Your task to perform on an android device: When is my next appointment? Image 0: 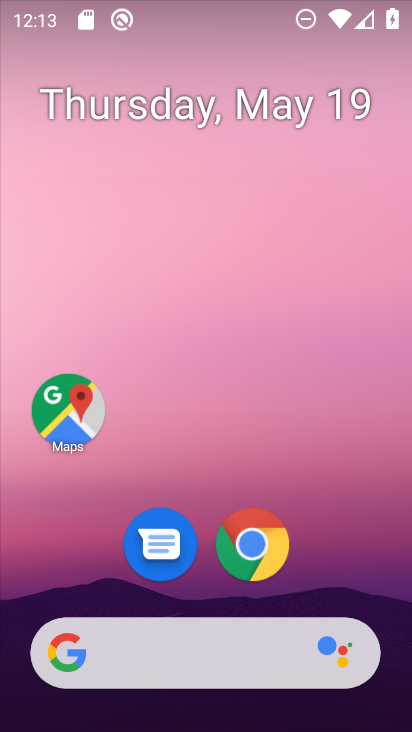
Step 0: drag from (365, 545) to (266, 83)
Your task to perform on an android device: When is my next appointment? Image 1: 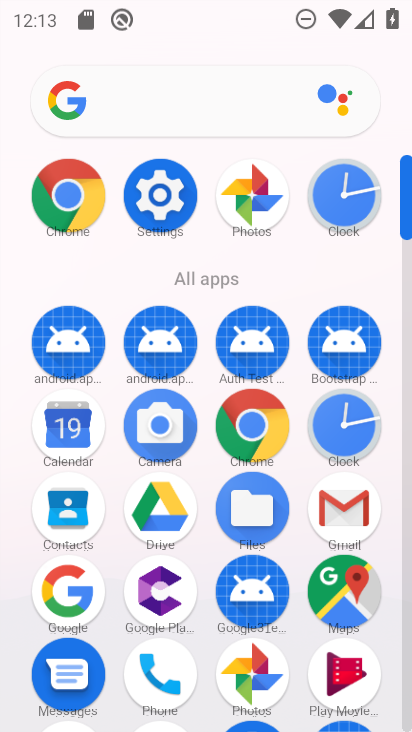
Step 1: click (63, 432)
Your task to perform on an android device: When is my next appointment? Image 2: 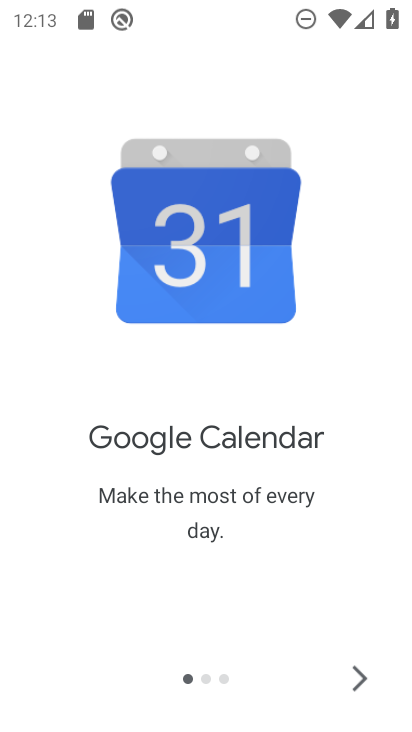
Step 2: click (348, 674)
Your task to perform on an android device: When is my next appointment? Image 3: 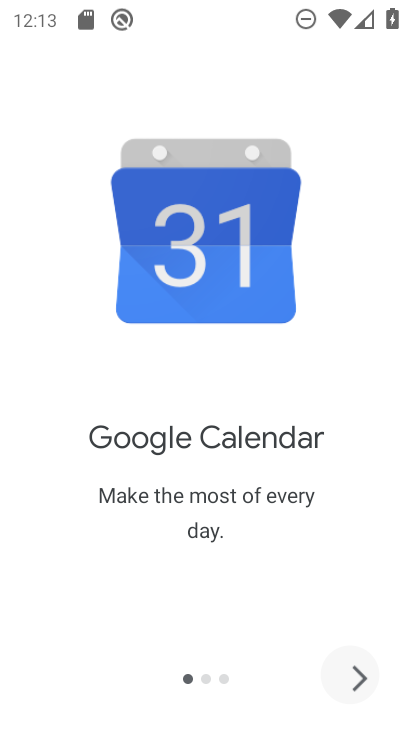
Step 3: click (348, 674)
Your task to perform on an android device: When is my next appointment? Image 4: 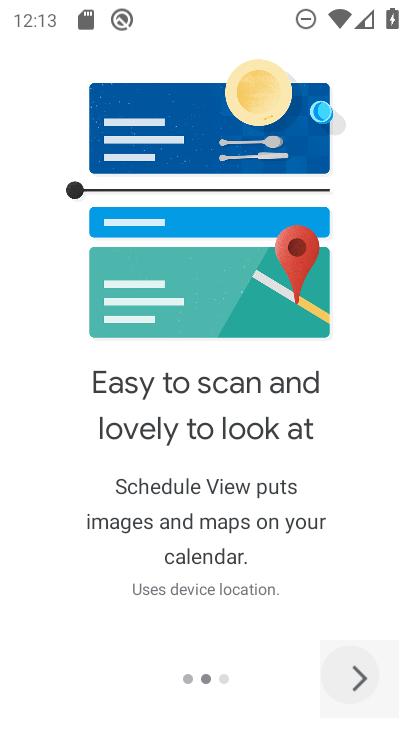
Step 4: click (348, 674)
Your task to perform on an android device: When is my next appointment? Image 5: 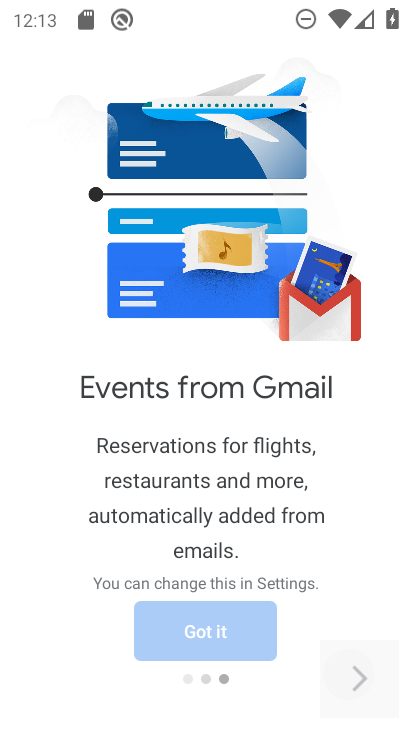
Step 5: click (348, 674)
Your task to perform on an android device: When is my next appointment? Image 6: 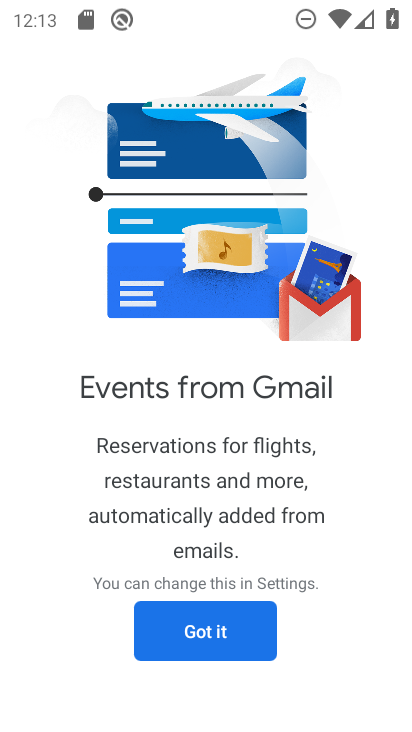
Step 6: click (231, 638)
Your task to perform on an android device: When is my next appointment? Image 7: 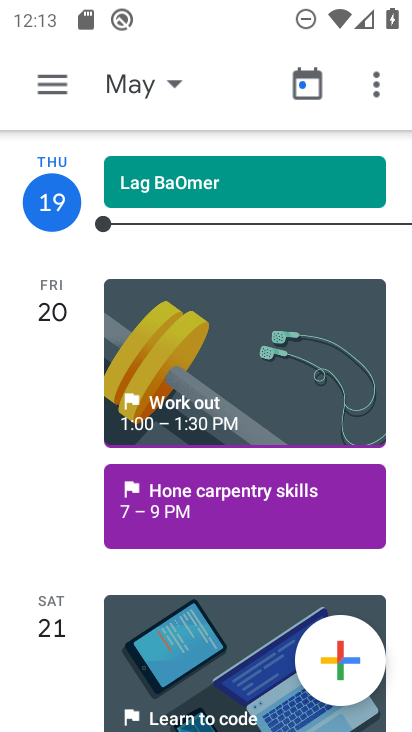
Step 7: click (30, 108)
Your task to perform on an android device: When is my next appointment? Image 8: 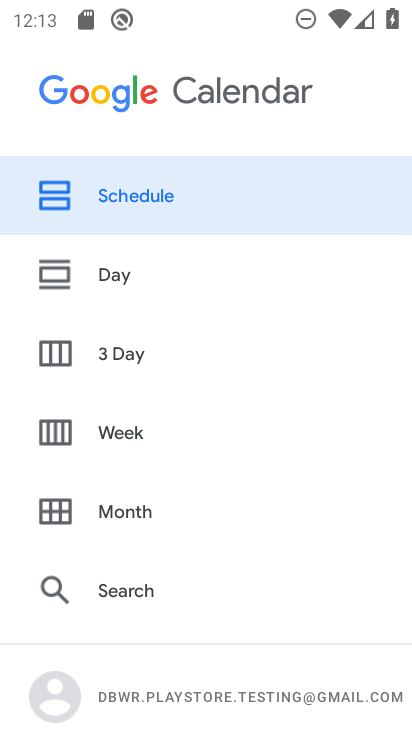
Step 8: click (105, 533)
Your task to perform on an android device: When is my next appointment? Image 9: 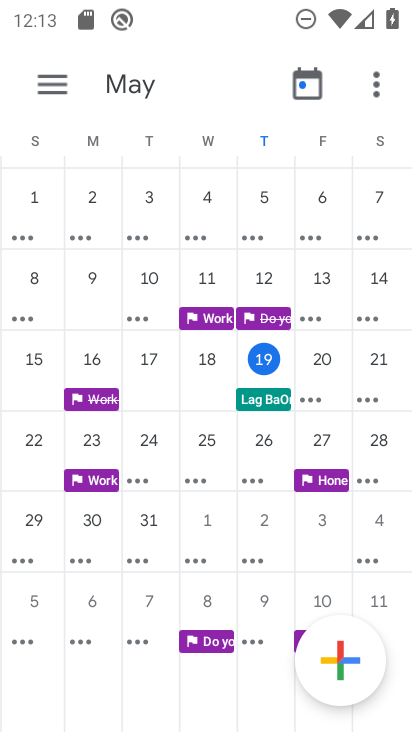
Step 9: task complete